Your task to perform on an android device: turn off picture-in-picture Image 0: 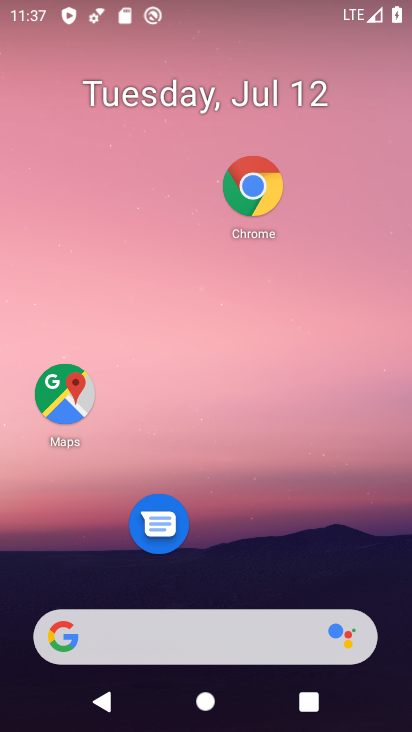
Step 0: drag from (183, 591) to (154, 126)
Your task to perform on an android device: turn off picture-in-picture Image 1: 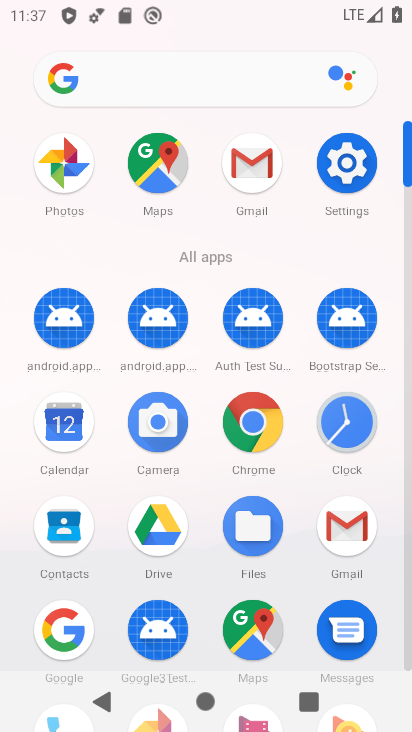
Step 1: click (353, 166)
Your task to perform on an android device: turn off picture-in-picture Image 2: 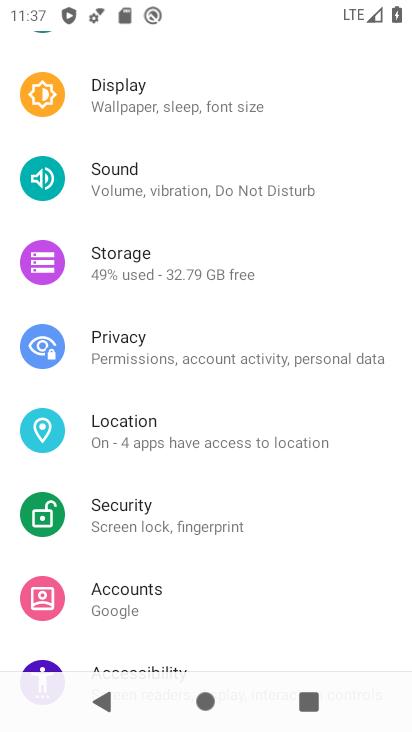
Step 2: drag from (164, 117) to (185, 280)
Your task to perform on an android device: turn off picture-in-picture Image 3: 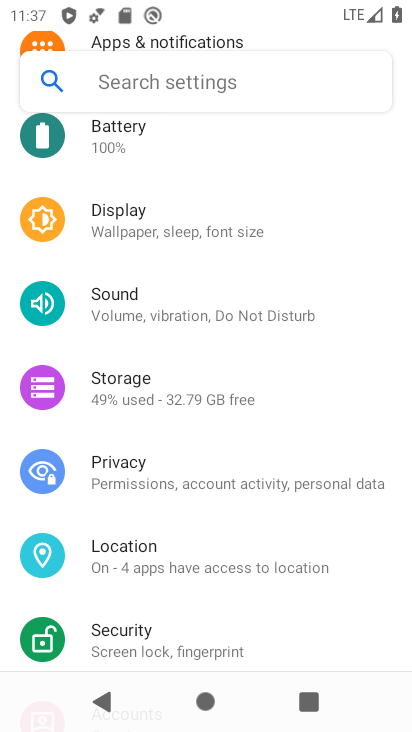
Step 3: drag from (186, 249) to (199, 369)
Your task to perform on an android device: turn off picture-in-picture Image 4: 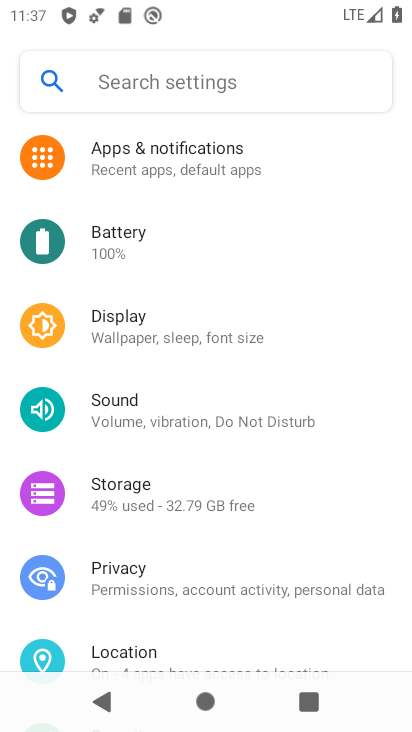
Step 4: click (152, 172)
Your task to perform on an android device: turn off picture-in-picture Image 5: 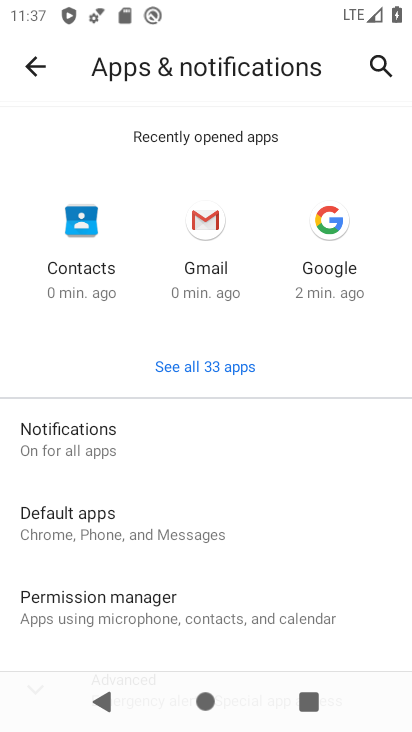
Step 5: drag from (139, 524) to (113, 297)
Your task to perform on an android device: turn off picture-in-picture Image 6: 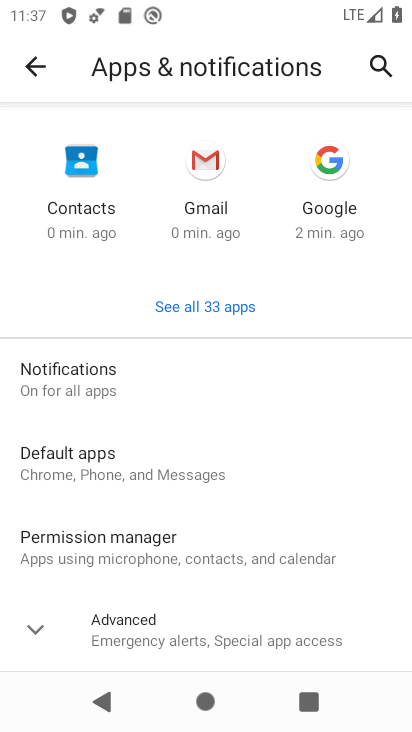
Step 6: click (135, 629)
Your task to perform on an android device: turn off picture-in-picture Image 7: 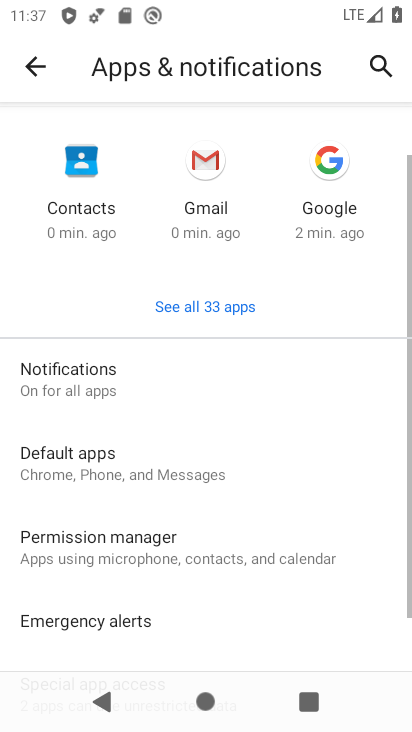
Step 7: drag from (135, 629) to (123, 178)
Your task to perform on an android device: turn off picture-in-picture Image 8: 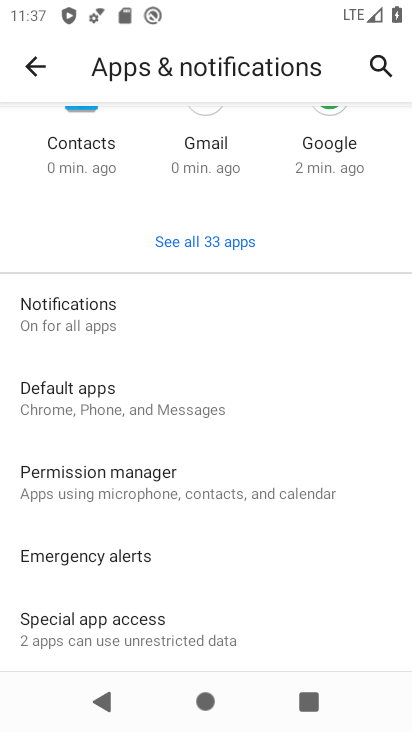
Step 8: click (56, 630)
Your task to perform on an android device: turn off picture-in-picture Image 9: 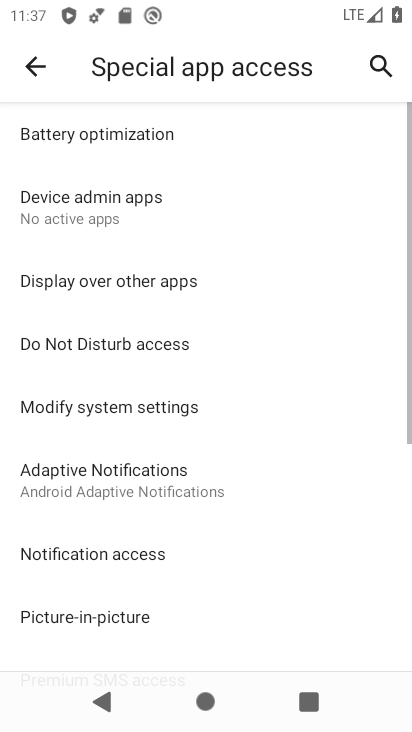
Step 9: task complete